Your task to perform on an android device: delete the emails in spam in the gmail app Image 0: 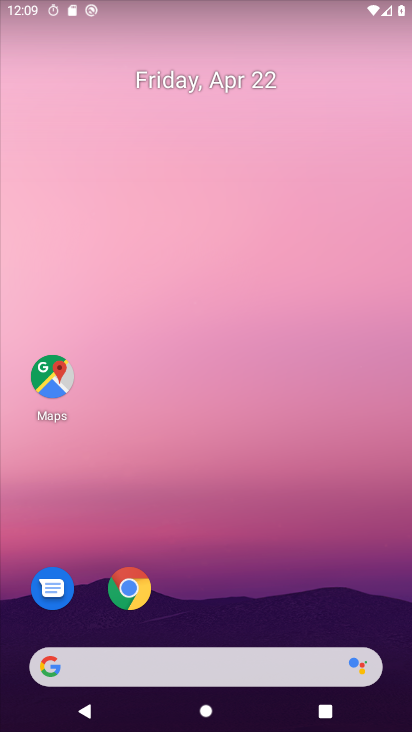
Step 0: drag from (207, 614) to (245, 203)
Your task to perform on an android device: delete the emails in spam in the gmail app Image 1: 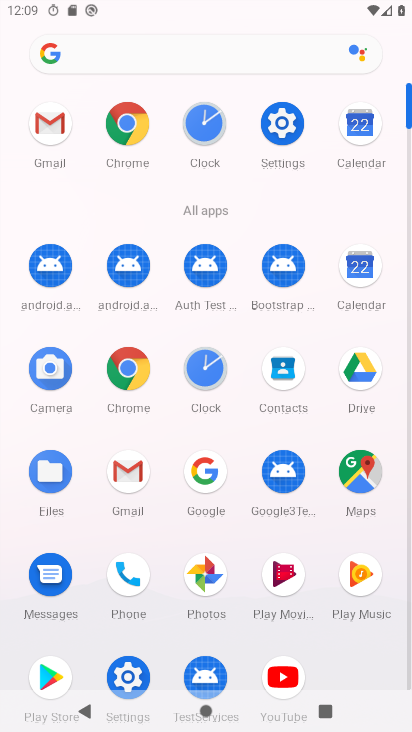
Step 1: click (116, 478)
Your task to perform on an android device: delete the emails in spam in the gmail app Image 2: 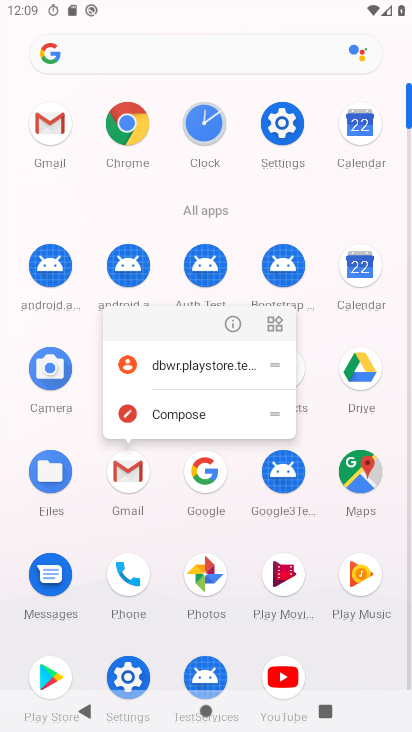
Step 2: click (120, 470)
Your task to perform on an android device: delete the emails in spam in the gmail app Image 3: 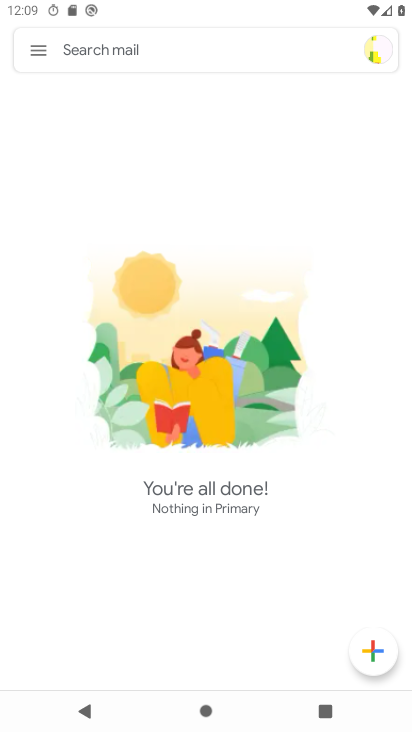
Step 3: click (22, 51)
Your task to perform on an android device: delete the emails in spam in the gmail app Image 4: 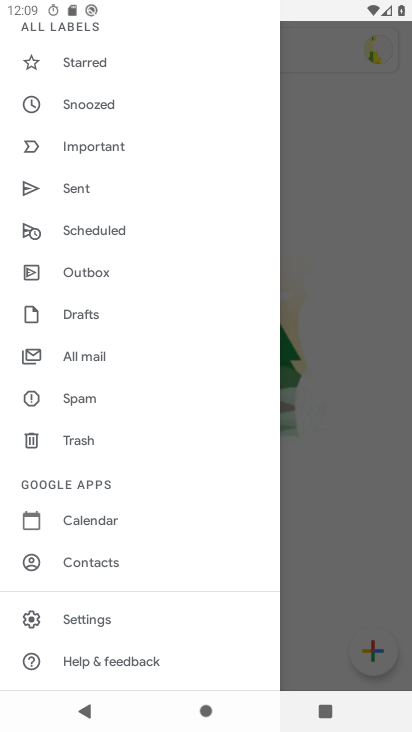
Step 4: click (89, 388)
Your task to perform on an android device: delete the emails in spam in the gmail app Image 5: 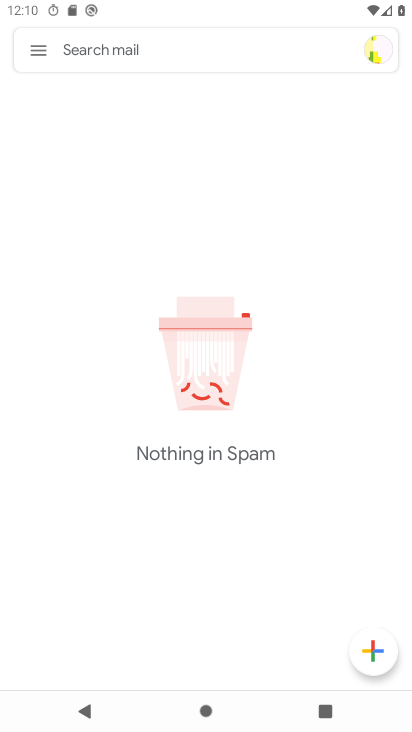
Step 5: task complete